Your task to perform on an android device: Open calendar and show me the second week of next month Image 0: 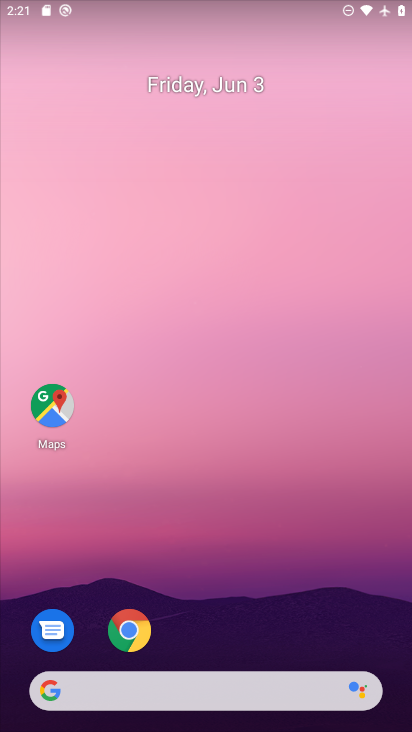
Step 0: drag from (206, 723) to (148, 154)
Your task to perform on an android device: Open calendar and show me the second week of next month Image 1: 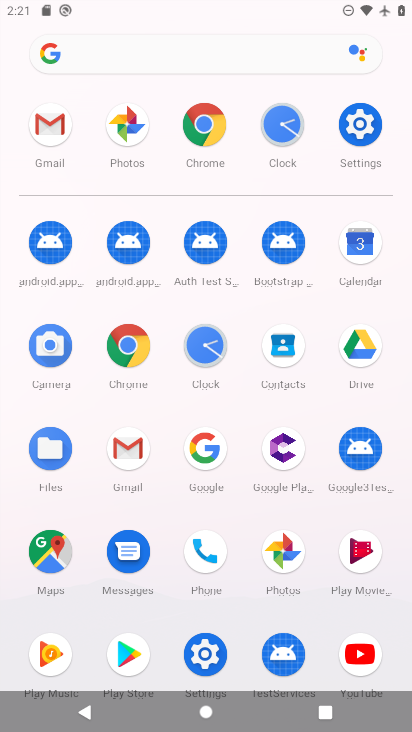
Step 1: click (366, 243)
Your task to perform on an android device: Open calendar and show me the second week of next month Image 2: 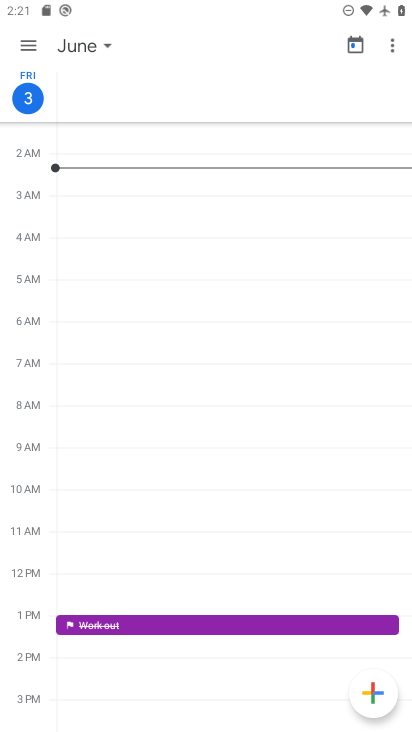
Step 2: click (91, 43)
Your task to perform on an android device: Open calendar and show me the second week of next month Image 3: 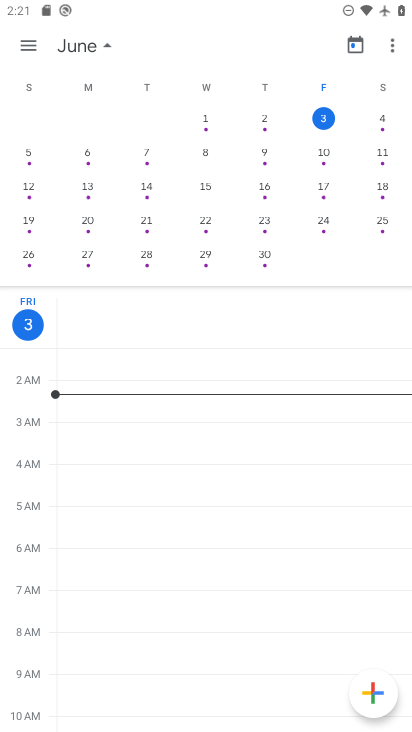
Step 3: drag from (363, 179) to (6, 184)
Your task to perform on an android device: Open calendar and show me the second week of next month Image 4: 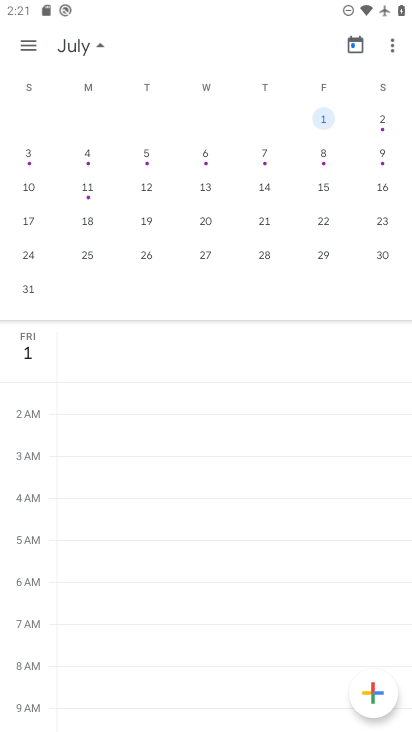
Step 4: click (87, 187)
Your task to perform on an android device: Open calendar and show me the second week of next month Image 5: 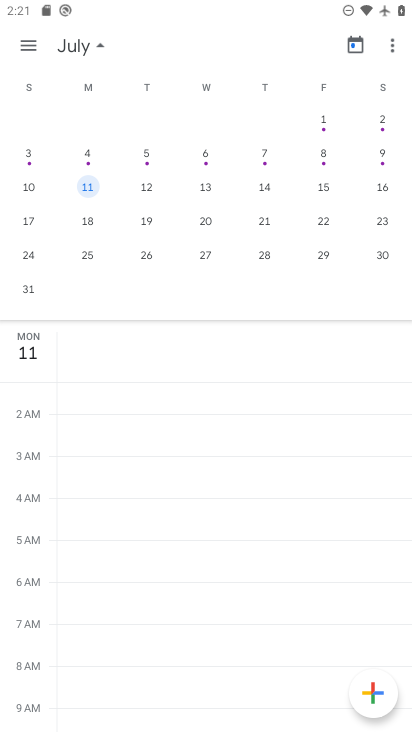
Step 5: click (87, 187)
Your task to perform on an android device: Open calendar and show me the second week of next month Image 6: 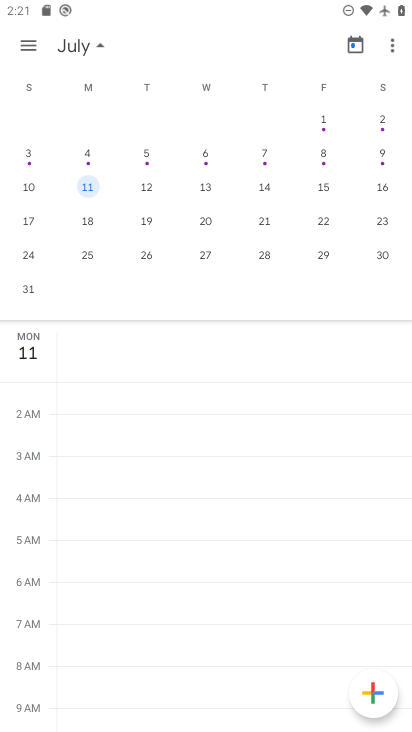
Step 6: click (32, 47)
Your task to perform on an android device: Open calendar and show me the second week of next month Image 7: 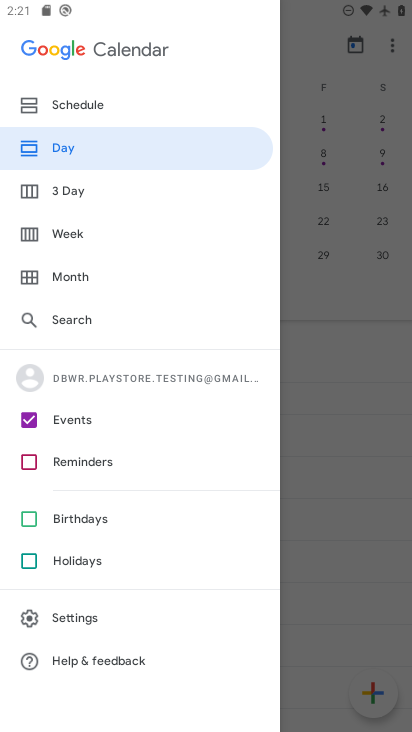
Step 7: click (60, 229)
Your task to perform on an android device: Open calendar and show me the second week of next month Image 8: 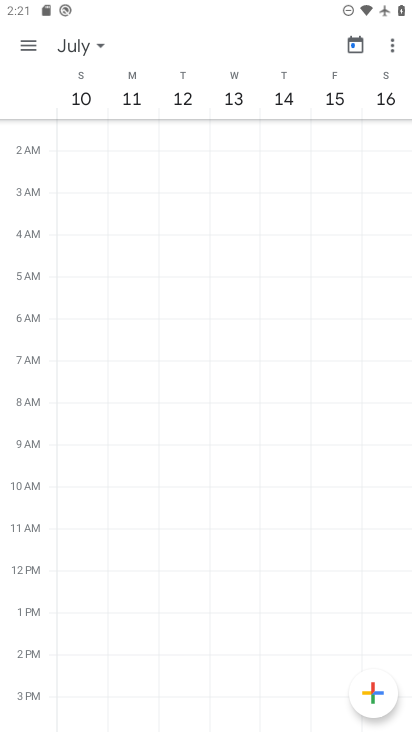
Step 8: task complete